Your task to perform on an android device: open chrome and create a bookmark for the current page Image 0: 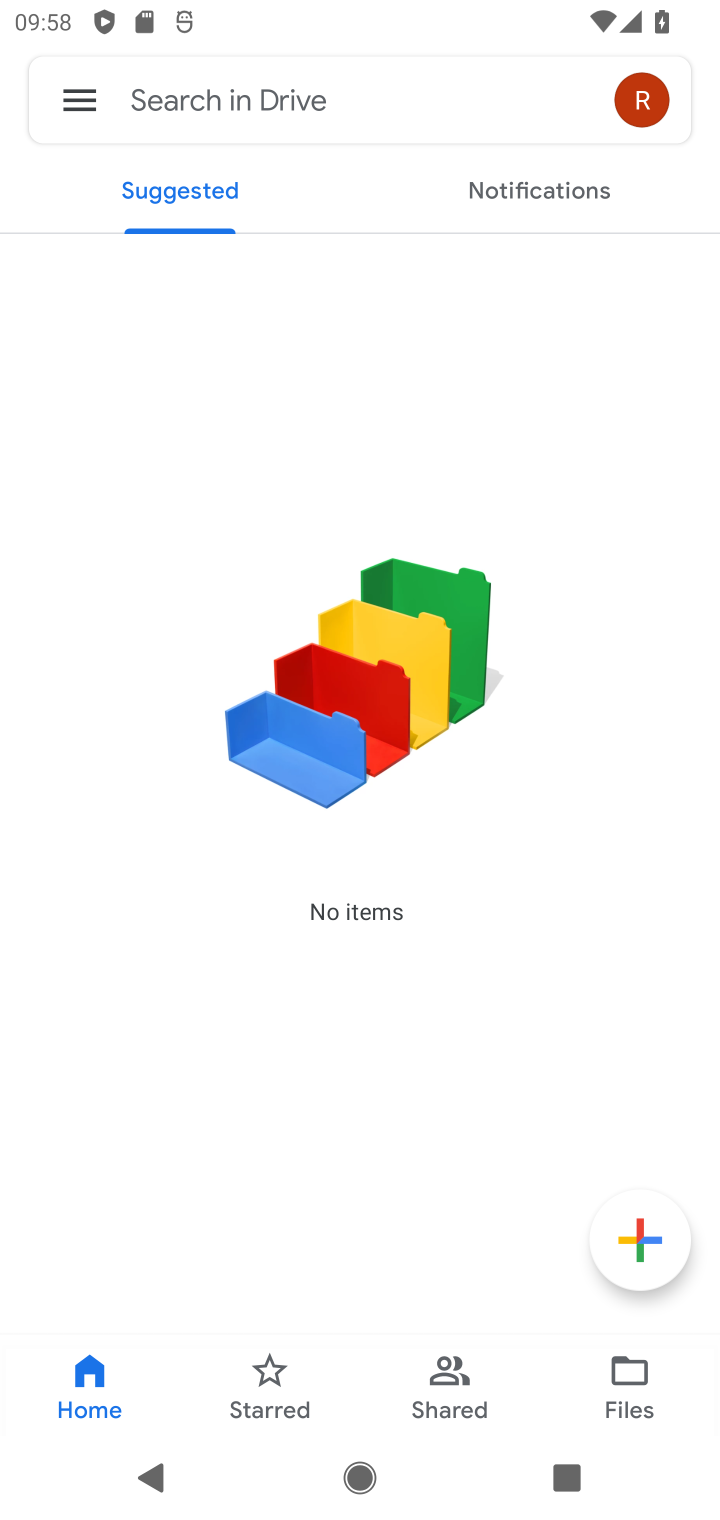
Step 0: press home button
Your task to perform on an android device: open chrome and create a bookmark for the current page Image 1: 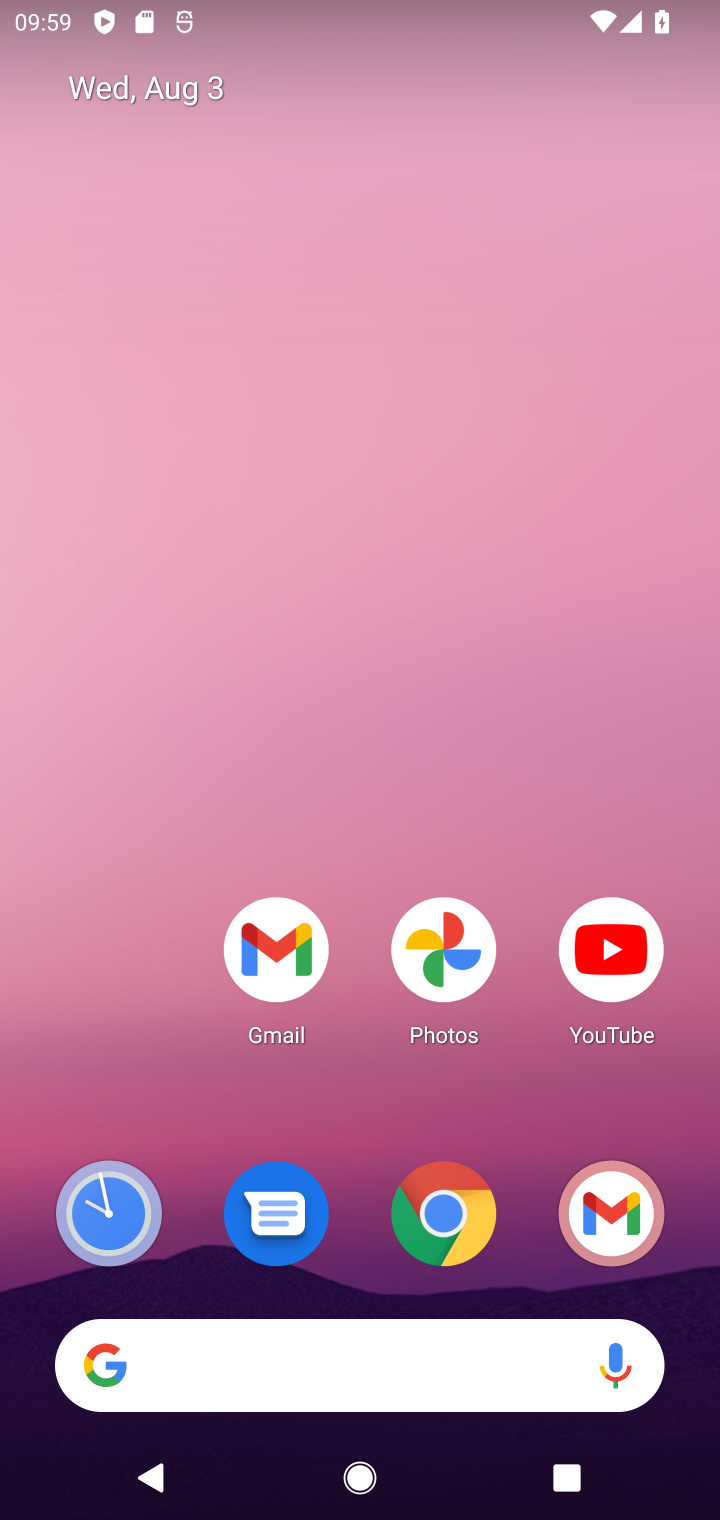
Step 1: click (482, 1227)
Your task to perform on an android device: open chrome and create a bookmark for the current page Image 2: 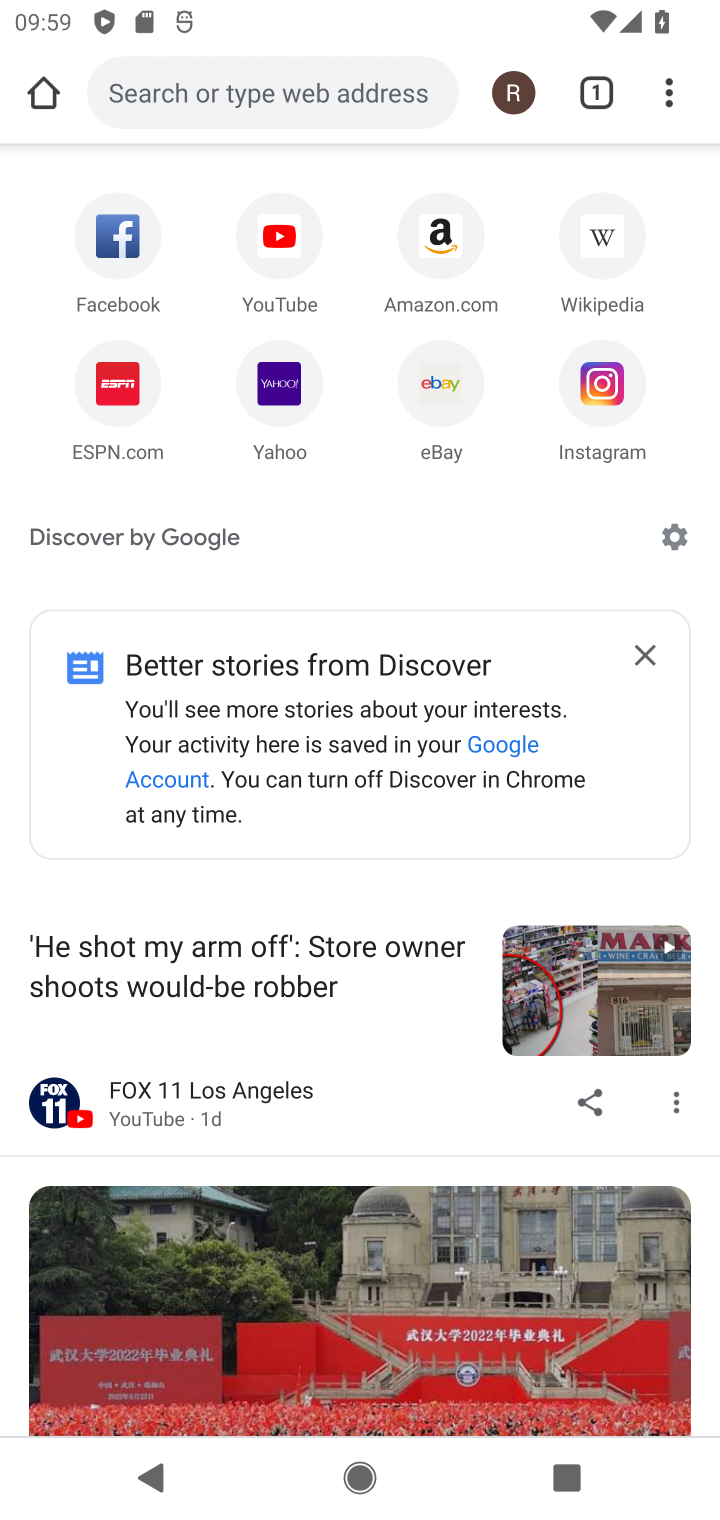
Step 2: click (667, 73)
Your task to perform on an android device: open chrome and create a bookmark for the current page Image 3: 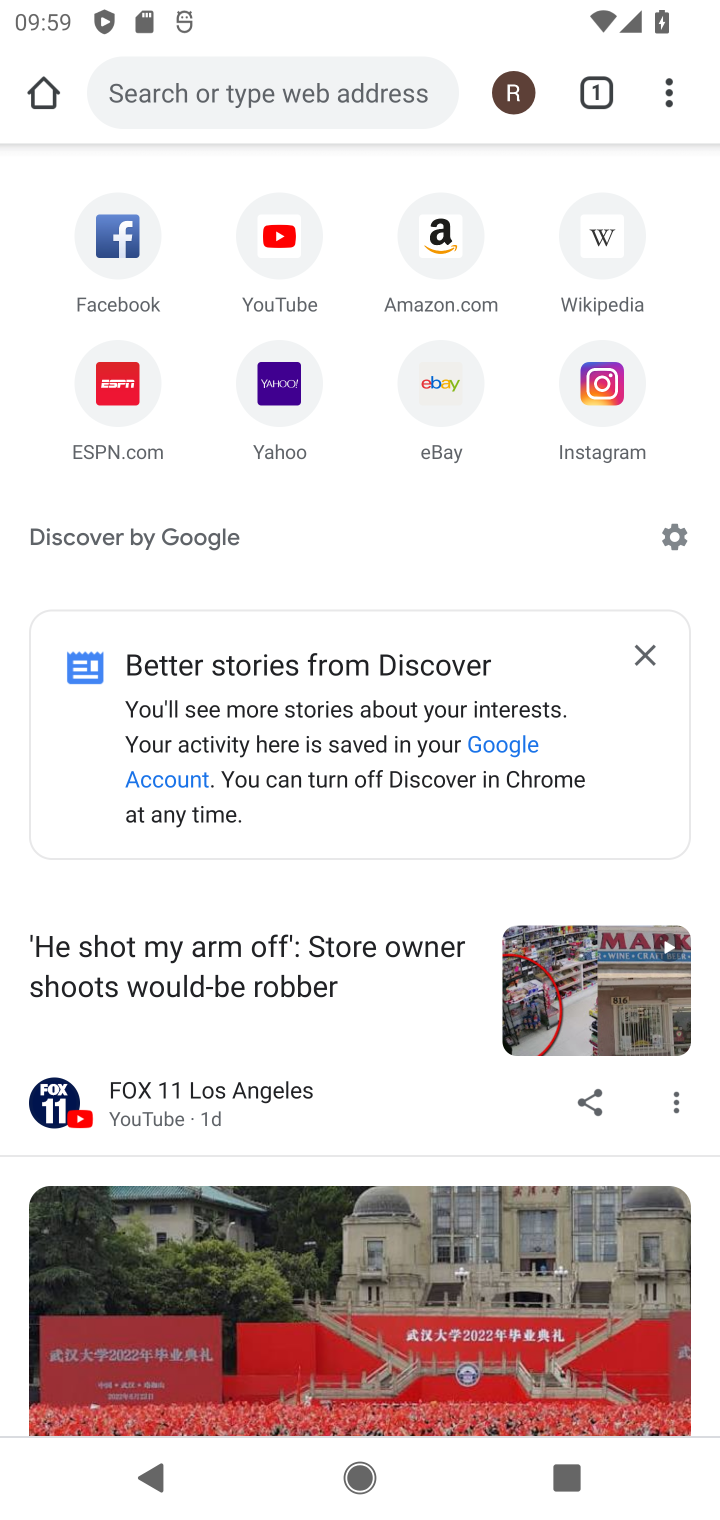
Step 3: click (667, 73)
Your task to perform on an android device: open chrome and create a bookmark for the current page Image 4: 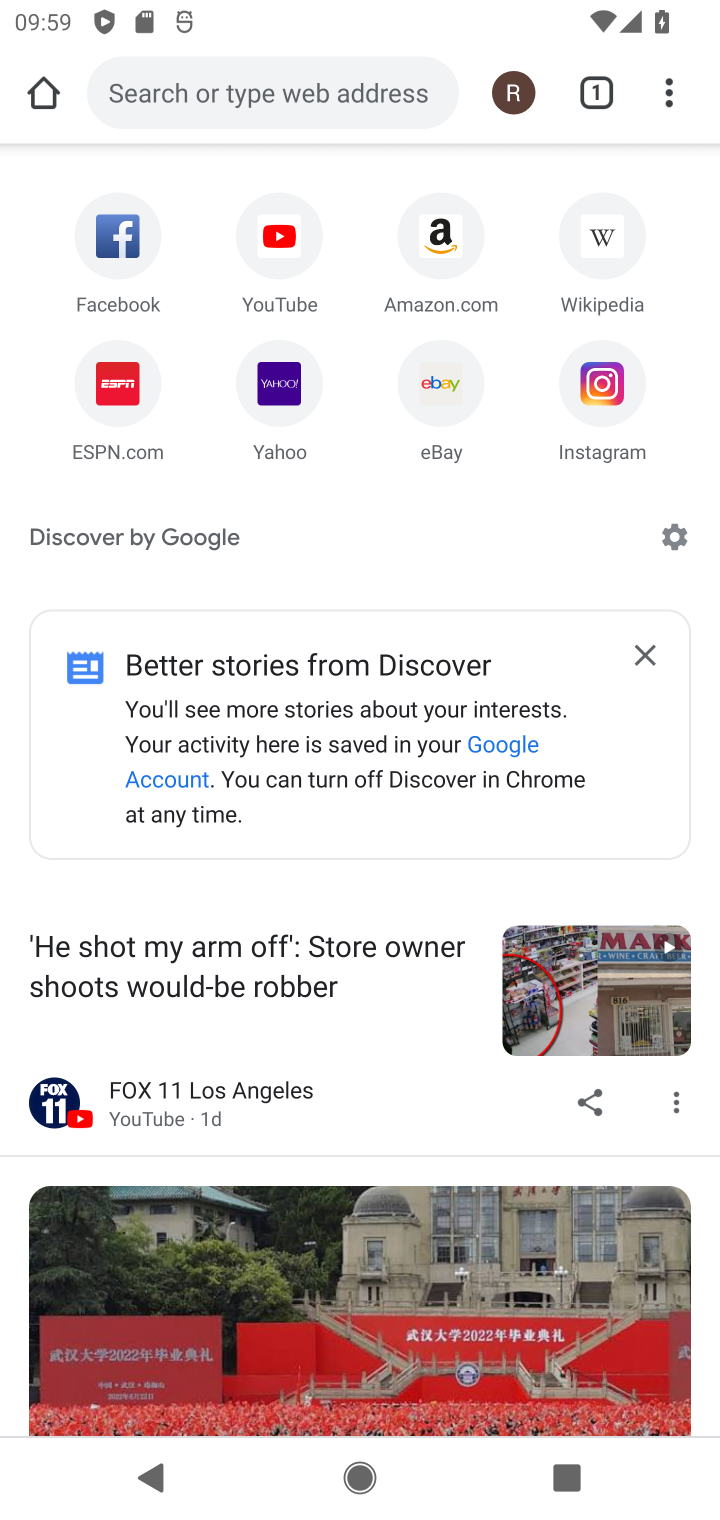
Step 4: click (667, 73)
Your task to perform on an android device: open chrome and create a bookmark for the current page Image 5: 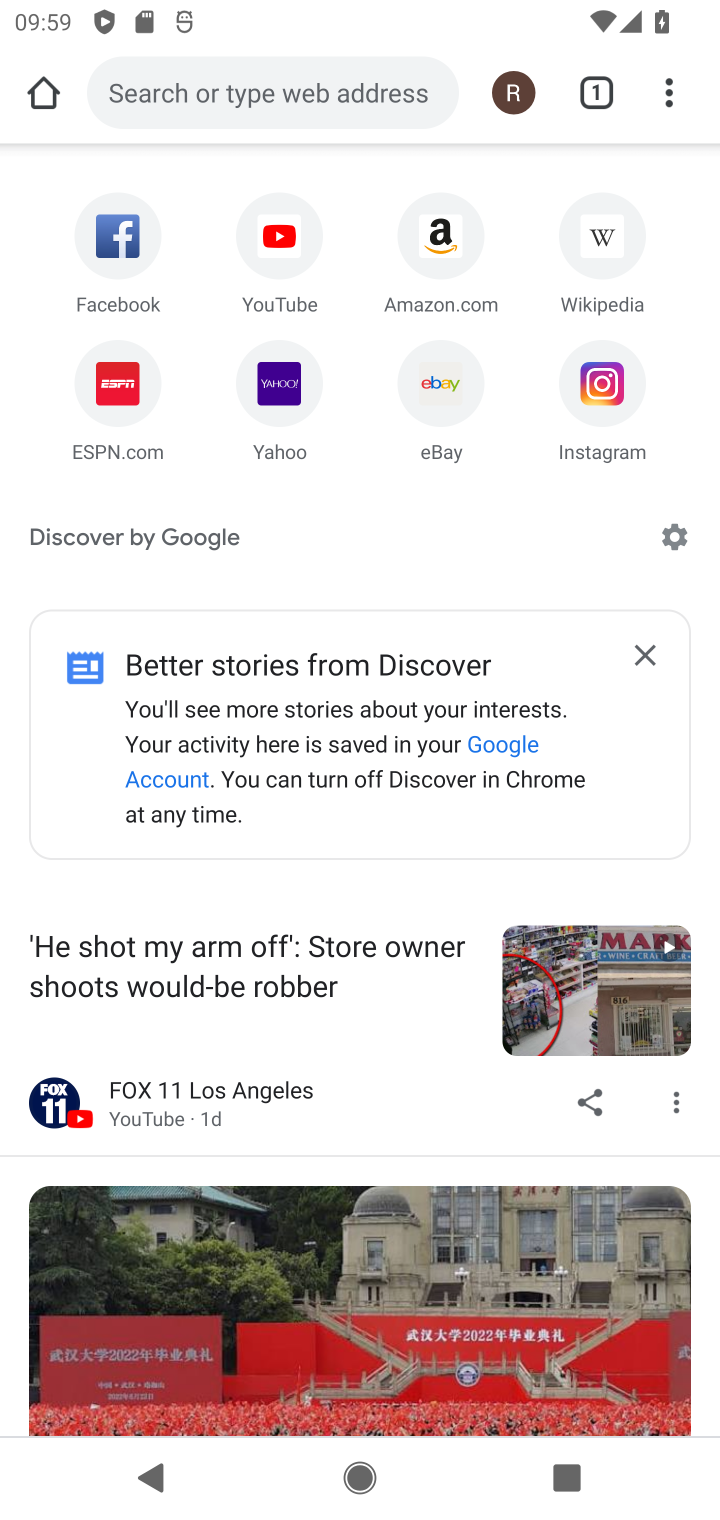
Step 5: click (674, 106)
Your task to perform on an android device: open chrome and create a bookmark for the current page Image 6: 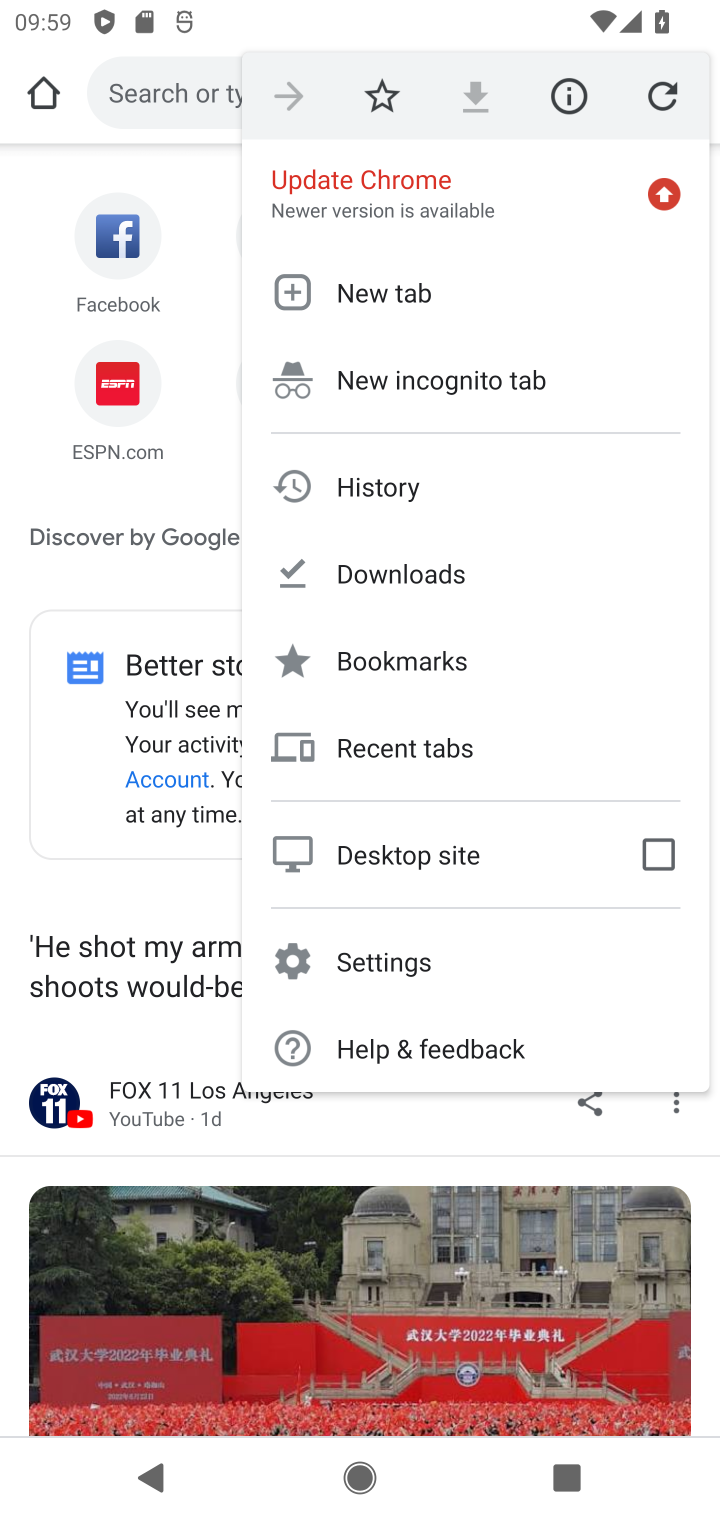
Step 6: click (379, 96)
Your task to perform on an android device: open chrome and create a bookmark for the current page Image 7: 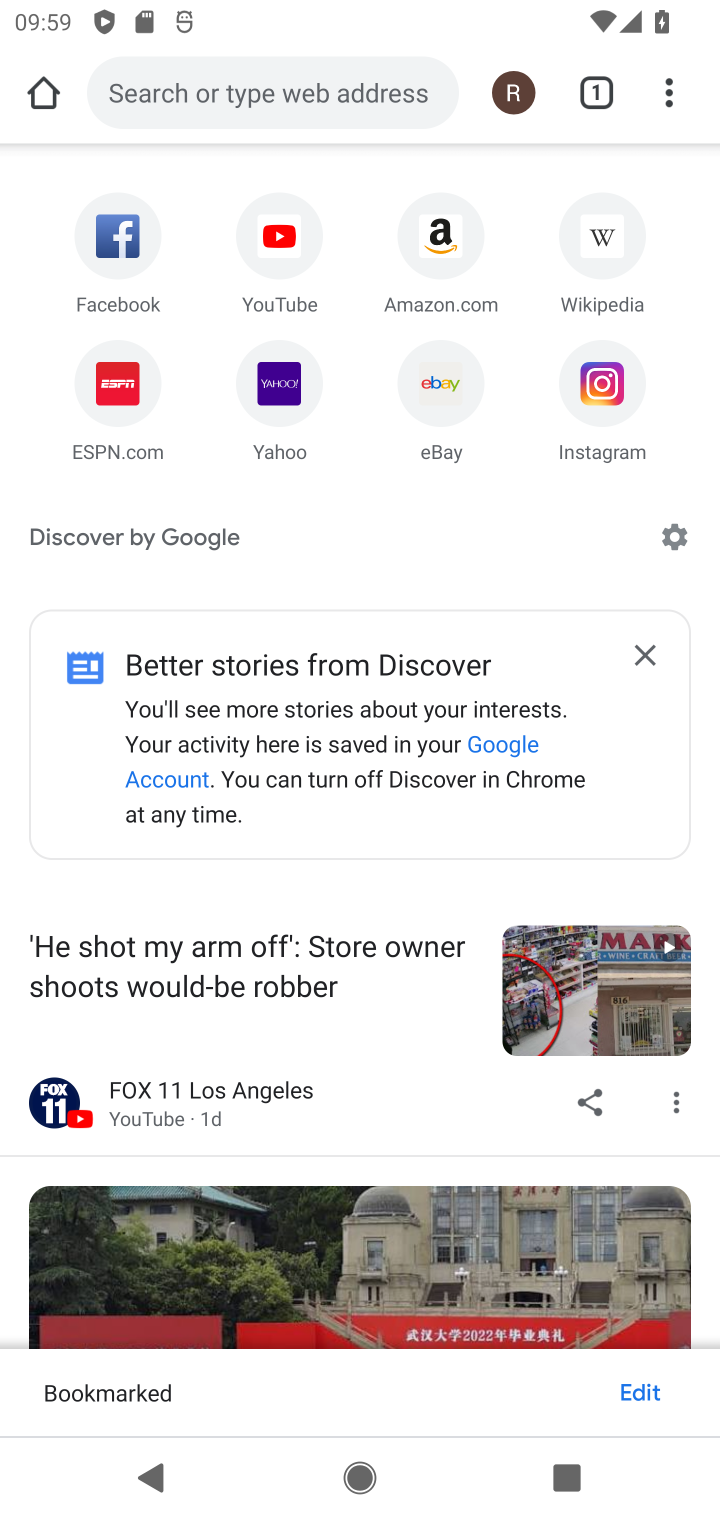
Step 7: task complete